Your task to perform on an android device: change the clock display to digital Image 0: 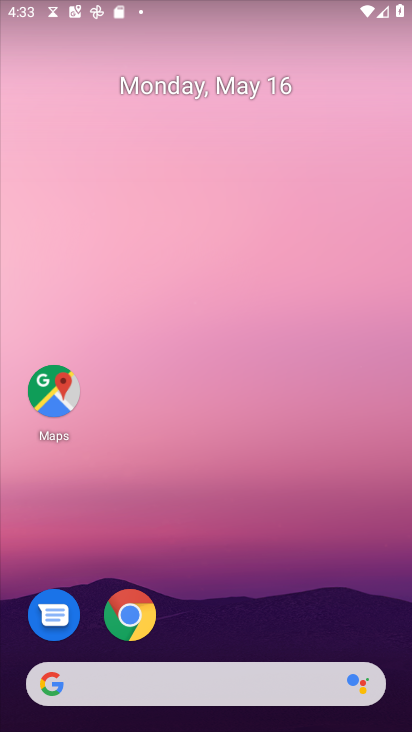
Step 0: click (399, 530)
Your task to perform on an android device: change the clock display to digital Image 1: 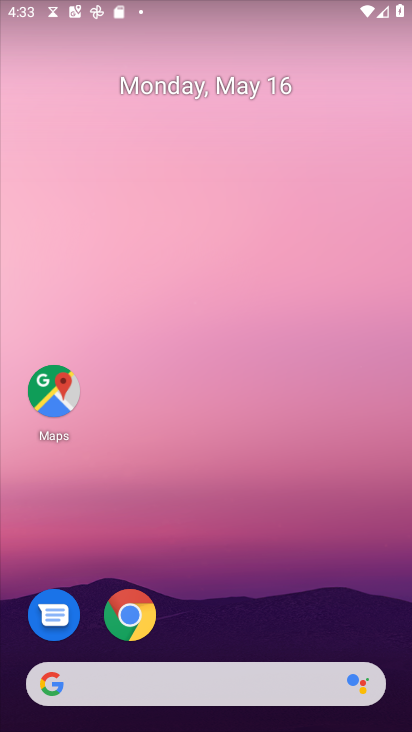
Step 1: drag from (267, 585) to (368, 163)
Your task to perform on an android device: change the clock display to digital Image 2: 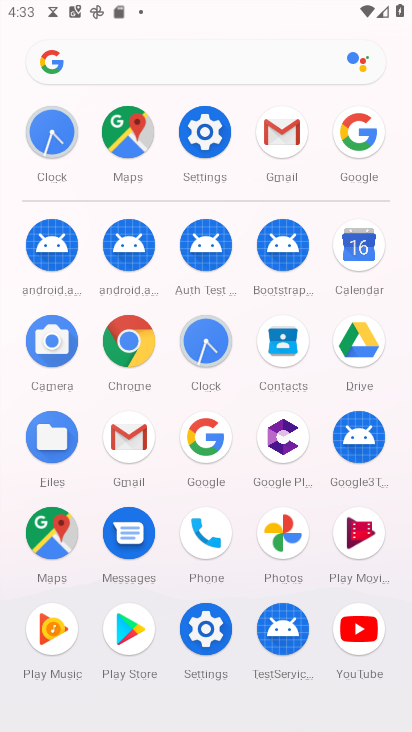
Step 2: click (203, 361)
Your task to perform on an android device: change the clock display to digital Image 3: 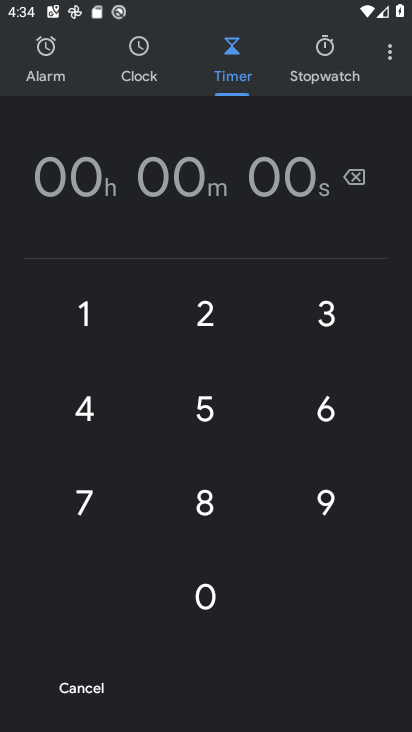
Step 3: click (390, 56)
Your task to perform on an android device: change the clock display to digital Image 4: 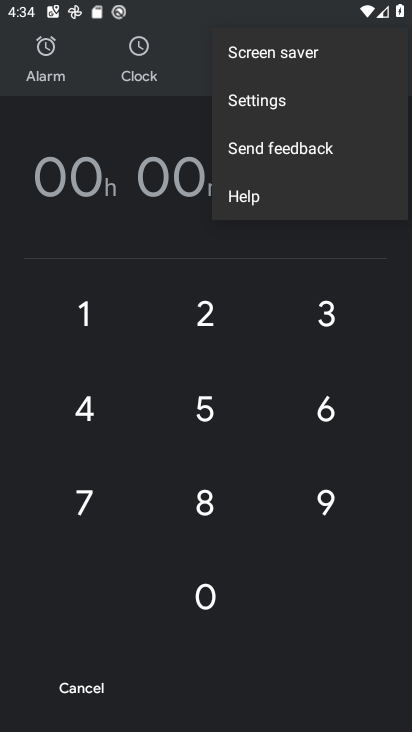
Step 4: click (267, 115)
Your task to perform on an android device: change the clock display to digital Image 5: 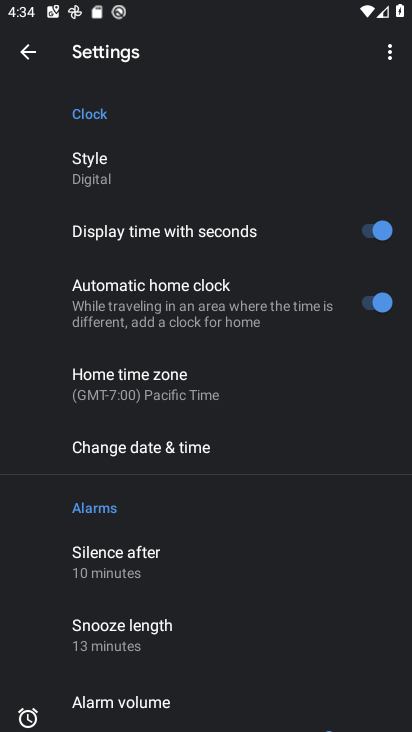
Step 5: task complete